Your task to perform on an android device: see tabs open on other devices in the chrome app Image 0: 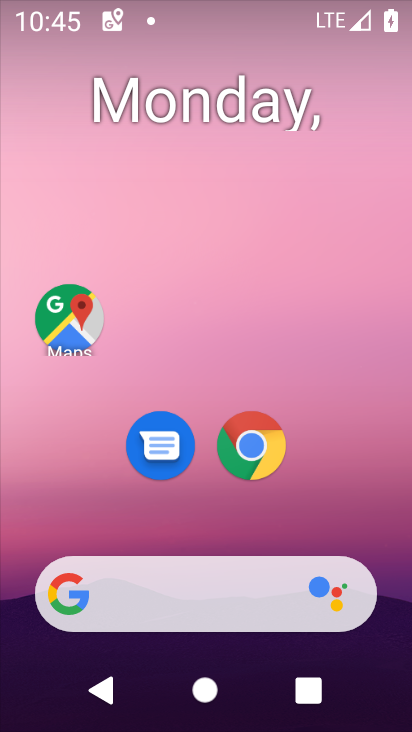
Step 0: drag from (215, 576) to (182, 15)
Your task to perform on an android device: see tabs open on other devices in the chrome app Image 1: 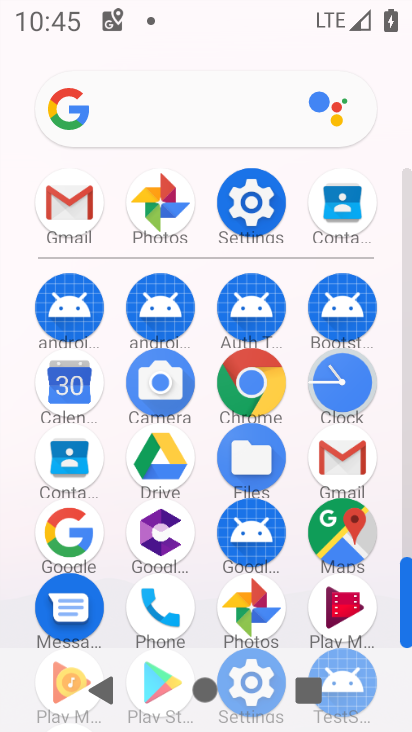
Step 1: drag from (236, 595) to (320, 46)
Your task to perform on an android device: see tabs open on other devices in the chrome app Image 2: 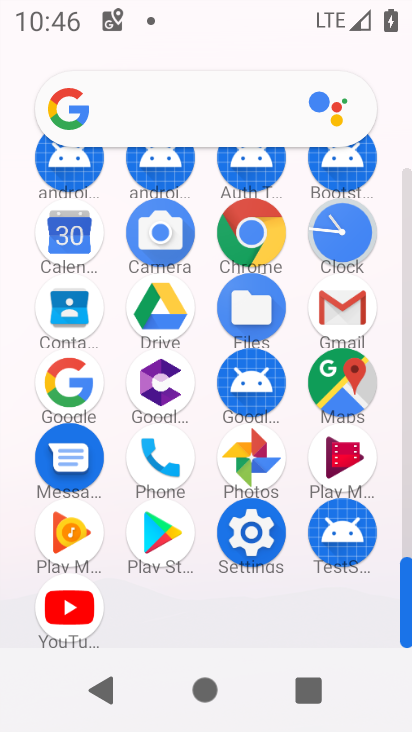
Step 2: click (262, 234)
Your task to perform on an android device: see tabs open on other devices in the chrome app Image 3: 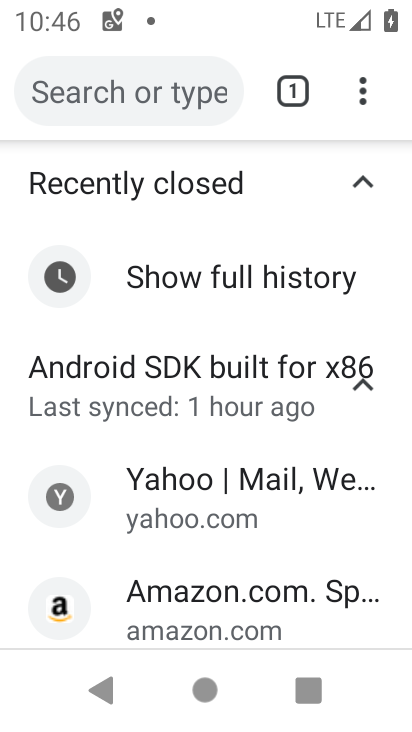
Step 3: click (363, 80)
Your task to perform on an android device: see tabs open on other devices in the chrome app Image 4: 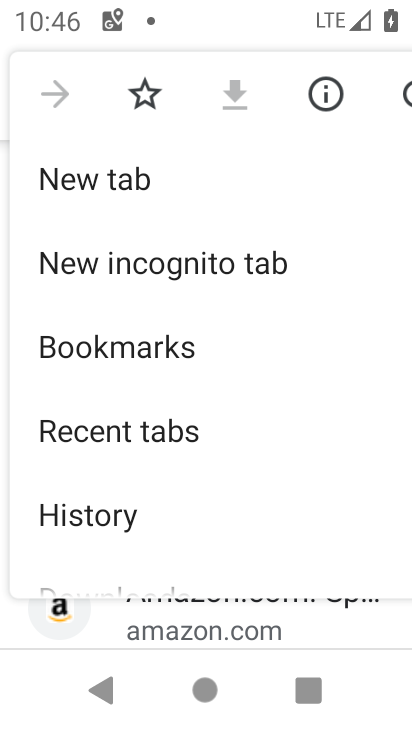
Step 4: click (178, 428)
Your task to perform on an android device: see tabs open on other devices in the chrome app Image 5: 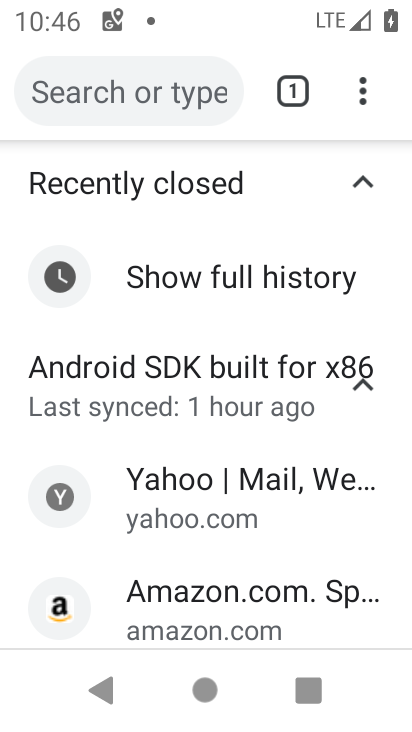
Step 5: task complete